Your task to perform on an android device: change the clock display to digital Image 0: 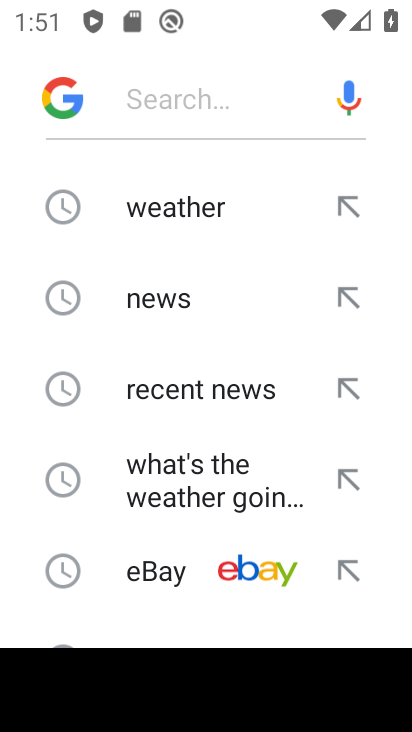
Step 0: press home button
Your task to perform on an android device: change the clock display to digital Image 1: 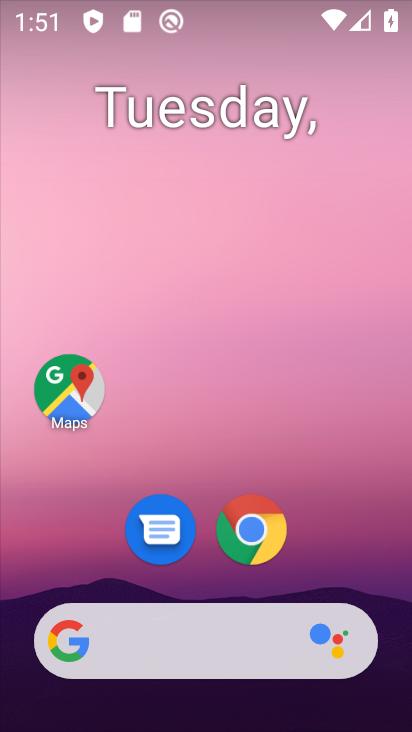
Step 1: drag from (330, 541) to (322, 75)
Your task to perform on an android device: change the clock display to digital Image 2: 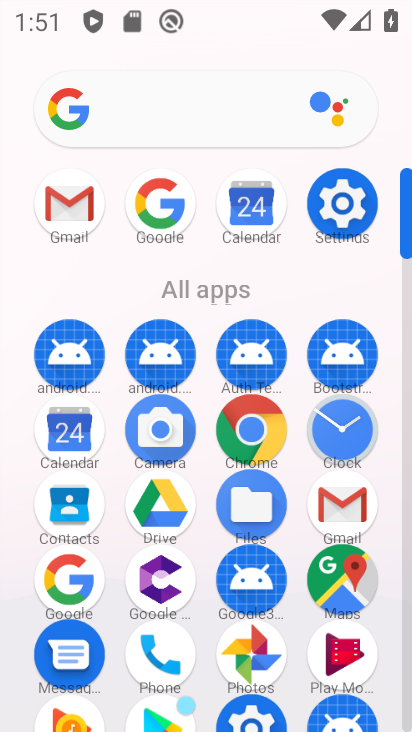
Step 2: click (347, 431)
Your task to perform on an android device: change the clock display to digital Image 3: 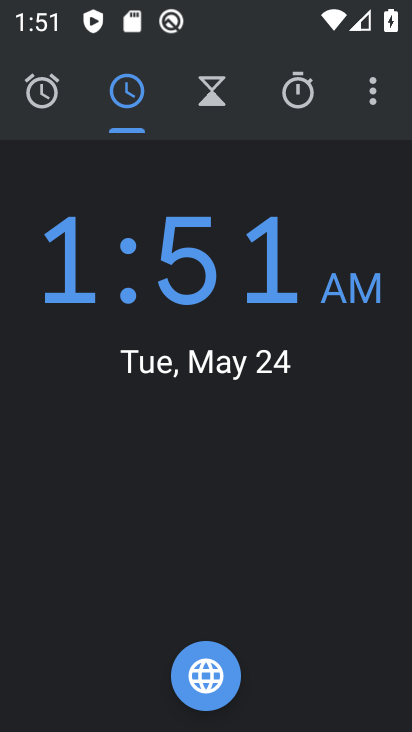
Step 3: click (368, 104)
Your task to perform on an android device: change the clock display to digital Image 4: 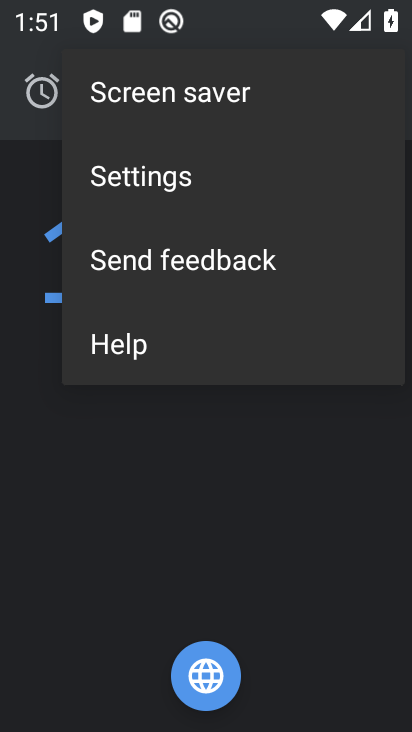
Step 4: click (208, 181)
Your task to perform on an android device: change the clock display to digital Image 5: 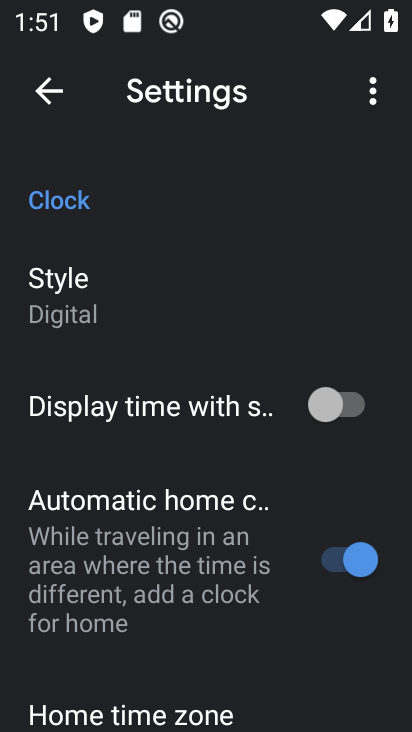
Step 5: click (119, 306)
Your task to perform on an android device: change the clock display to digital Image 6: 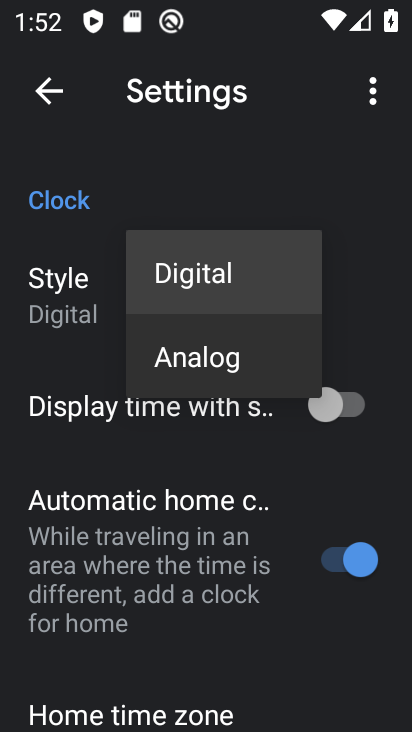
Step 6: task complete